Your task to perform on an android device: Open Google Maps Image 0: 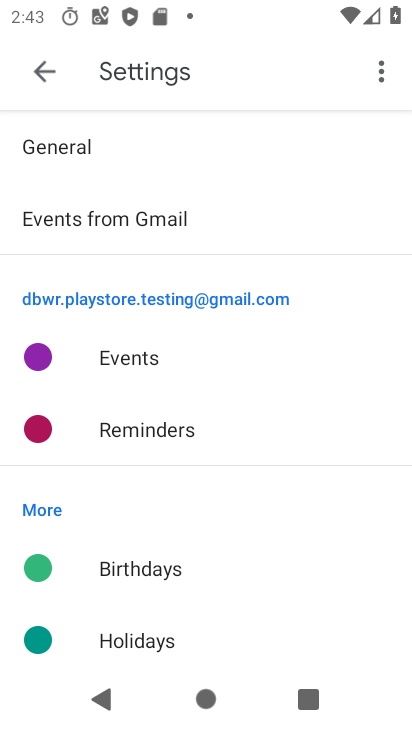
Step 0: press home button
Your task to perform on an android device: Open Google Maps Image 1: 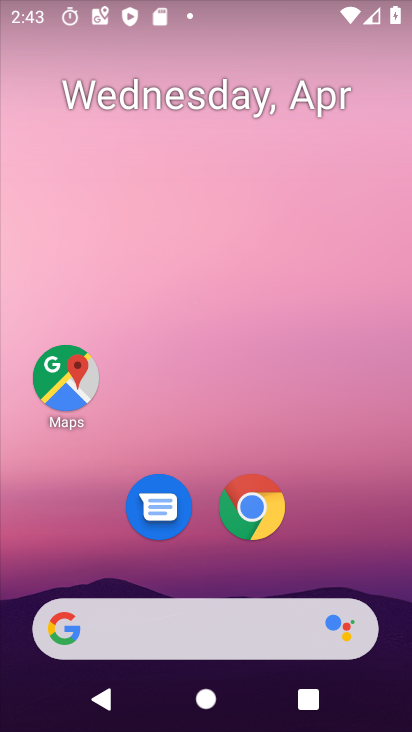
Step 1: click (81, 378)
Your task to perform on an android device: Open Google Maps Image 2: 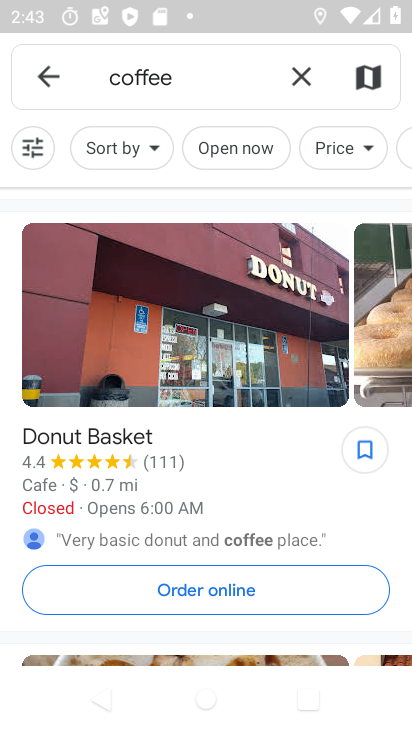
Step 2: click (50, 74)
Your task to perform on an android device: Open Google Maps Image 3: 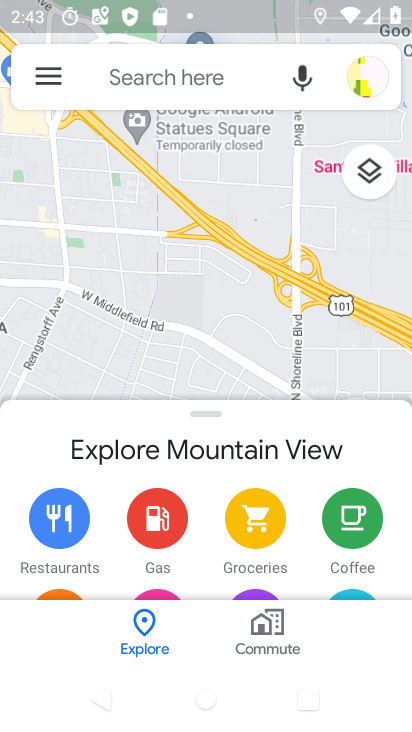
Step 3: task complete